Your task to perform on an android device: What's the weather going to be this weekend? Image 0: 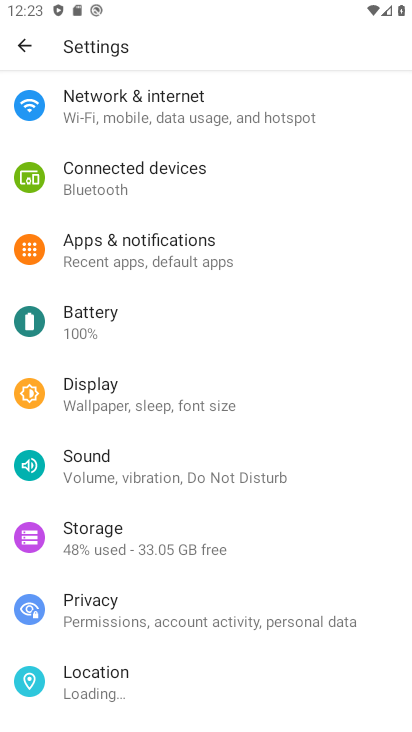
Step 0: press back button
Your task to perform on an android device: What's the weather going to be this weekend? Image 1: 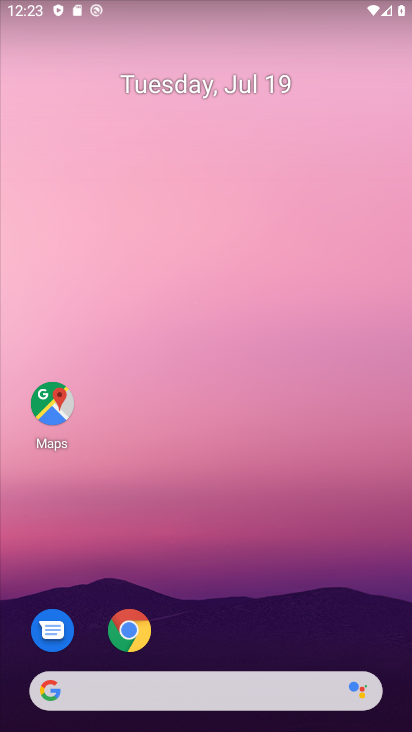
Step 1: drag from (216, 594) to (173, 179)
Your task to perform on an android device: What's the weather going to be this weekend? Image 2: 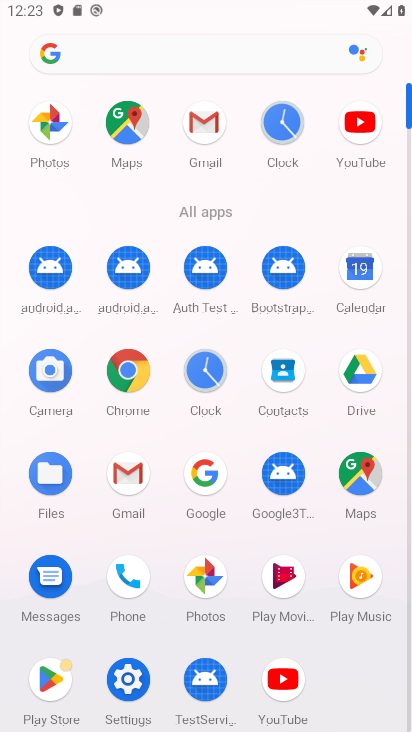
Step 2: click (127, 373)
Your task to perform on an android device: What's the weather going to be this weekend? Image 3: 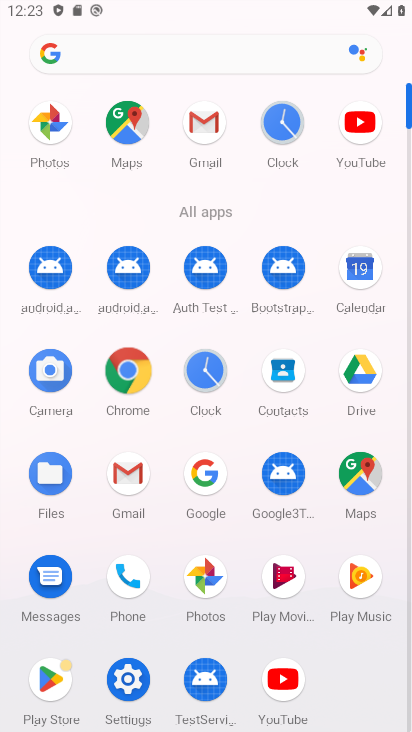
Step 3: click (127, 373)
Your task to perform on an android device: What's the weather going to be this weekend? Image 4: 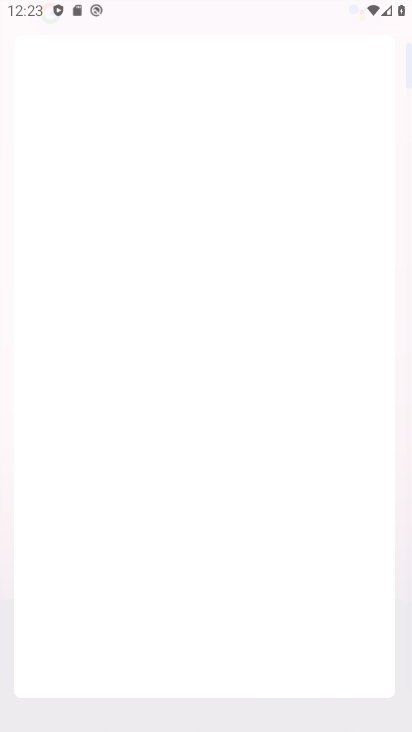
Step 4: click (131, 374)
Your task to perform on an android device: What's the weather going to be this weekend? Image 5: 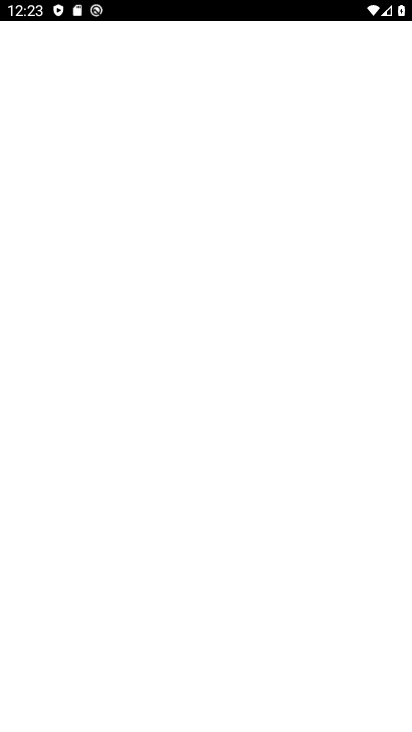
Step 5: click (130, 373)
Your task to perform on an android device: What's the weather going to be this weekend? Image 6: 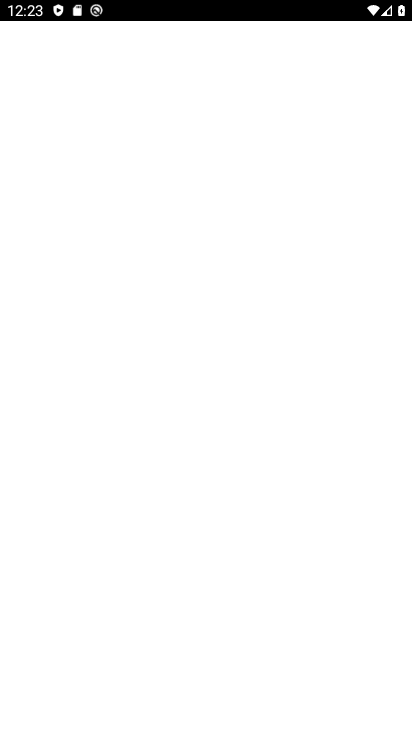
Step 6: click (130, 373)
Your task to perform on an android device: What's the weather going to be this weekend? Image 7: 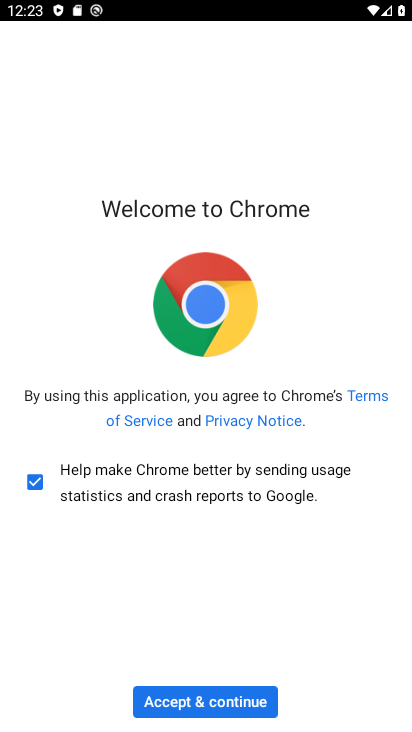
Step 7: click (211, 704)
Your task to perform on an android device: What's the weather going to be this weekend? Image 8: 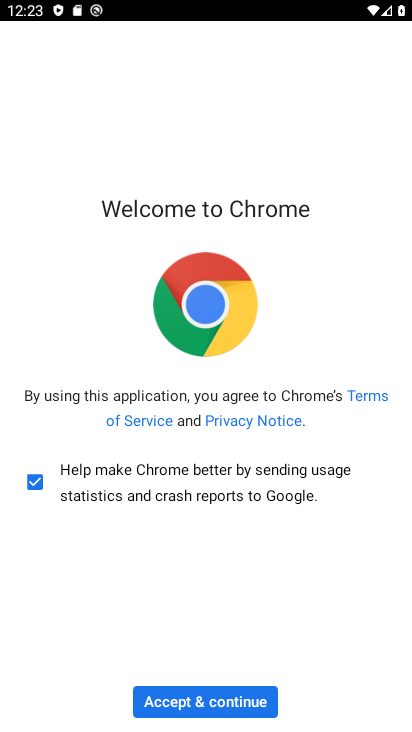
Step 8: click (211, 704)
Your task to perform on an android device: What's the weather going to be this weekend? Image 9: 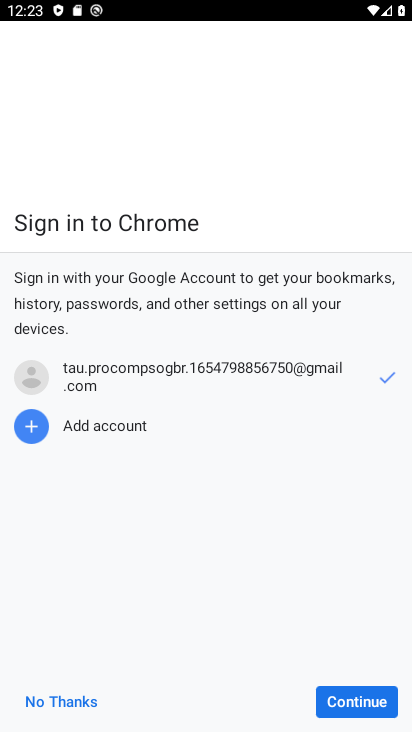
Step 9: click (213, 702)
Your task to perform on an android device: What's the weather going to be this weekend? Image 10: 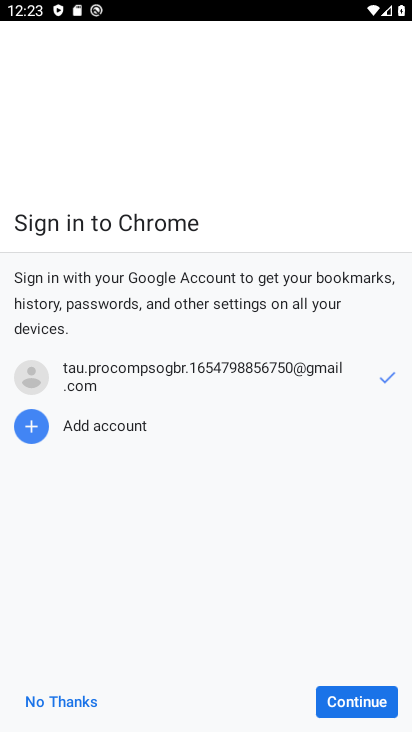
Step 10: click (214, 703)
Your task to perform on an android device: What's the weather going to be this weekend? Image 11: 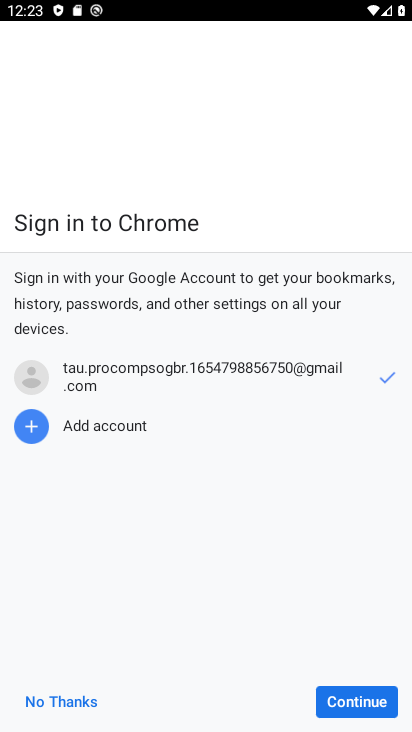
Step 11: click (214, 703)
Your task to perform on an android device: What's the weather going to be this weekend? Image 12: 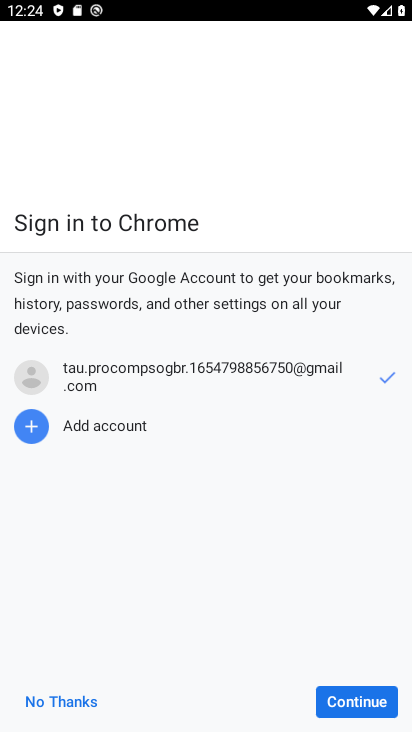
Step 12: click (340, 701)
Your task to perform on an android device: What's the weather going to be this weekend? Image 13: 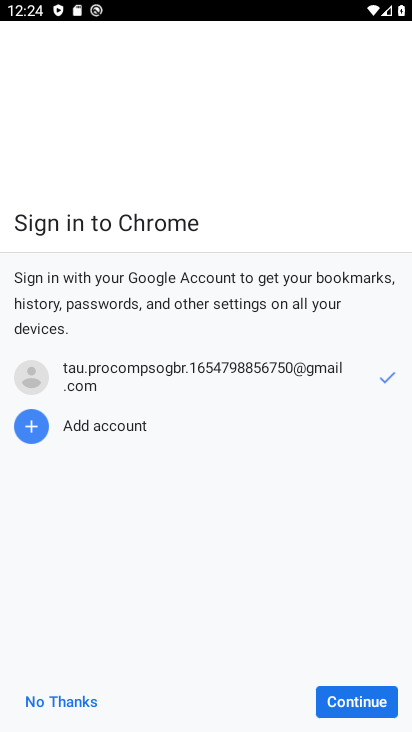
Step 13: click (343, 701)
Your task to perform on an android device: What's the weather going to be this weekend? Image 14: 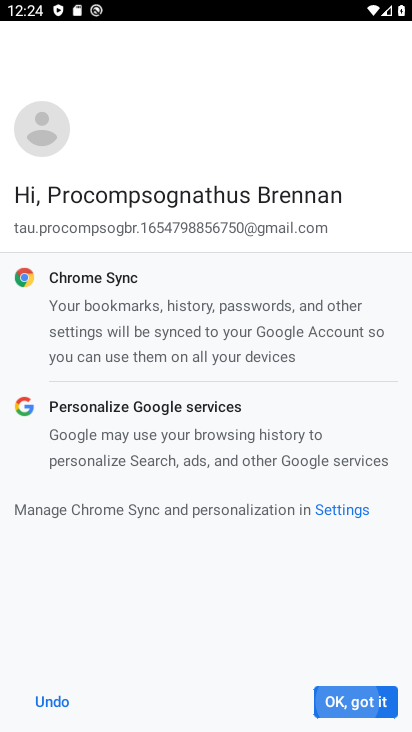
Step 14: click (342, 698)
Your task to perform on an android device: What's the weather going to be this weekend? Image 15: 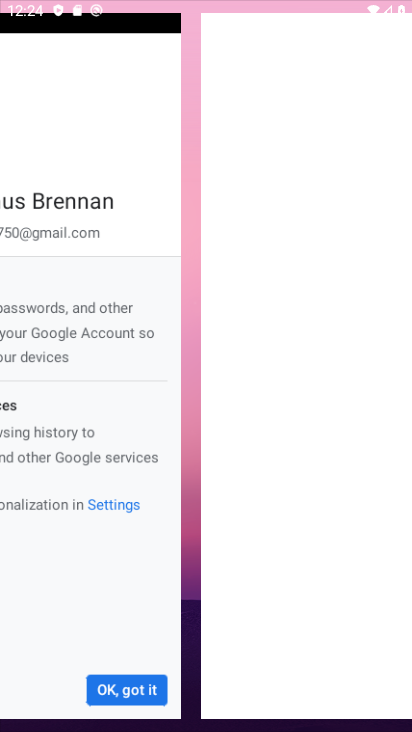
Step 15: click (343, 697)
Your task to perform on an android device: What's the weather going to be this weekend? Image 16: 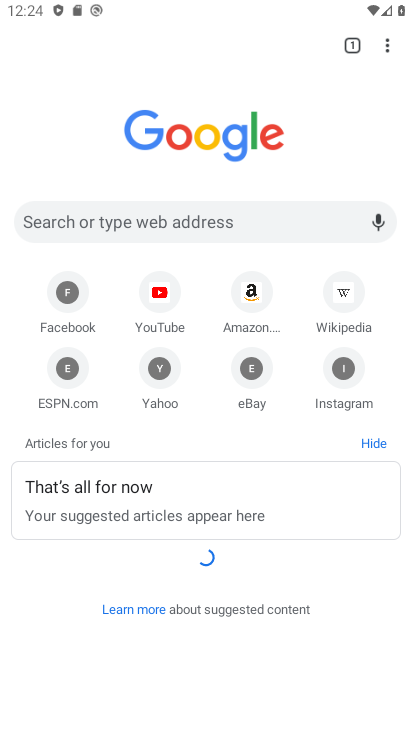
Step 16: click (68, 218)
Your task to perform on an android device: What's the weather going to be this weekend? Image 17: 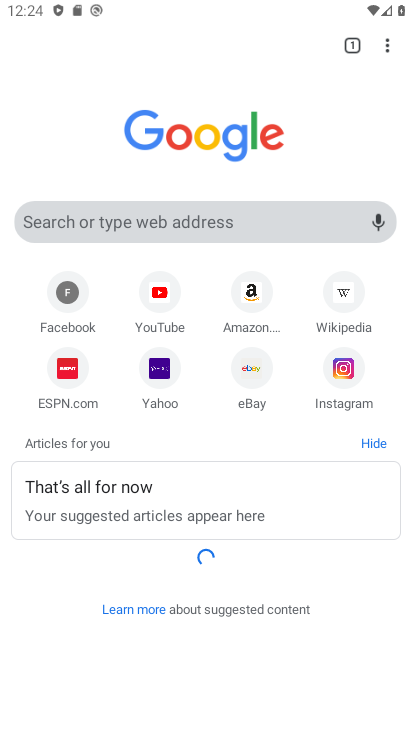
Step 17: click (68, 218)
Your task to perform on an android device: What's the weather going to be this weekend? Image 18: 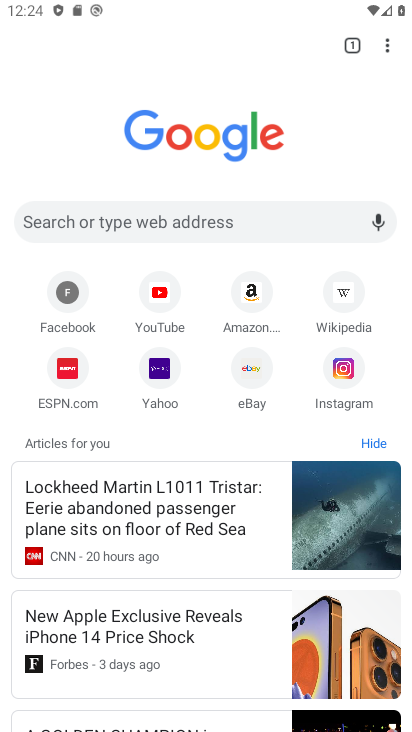
Step 18: click (89, 213)
Your task to perform on an android device: What's the weather going to be this weekend? Image 19: 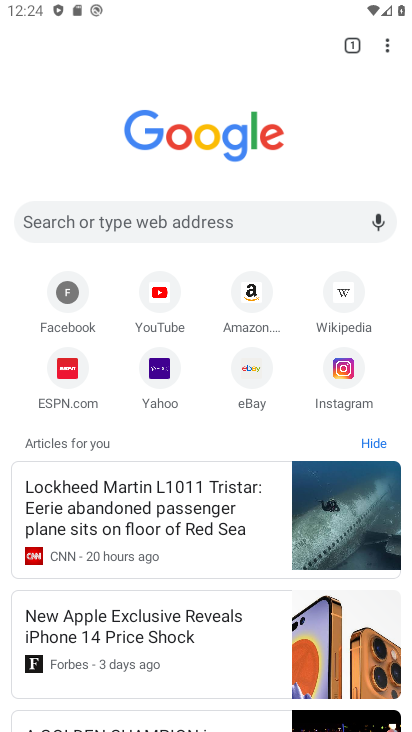
Step 19: click (89, 214)
Your task to perform on an android device: What's the weather going to be this weekend? Image 20: 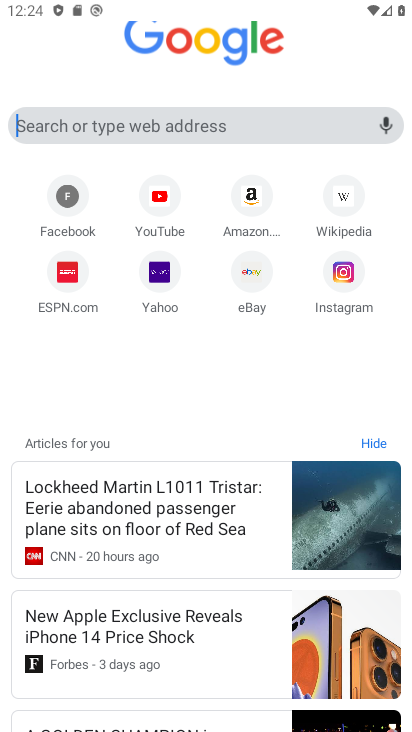
Step 20: click (89, 214)
Your task to perform on an android device: What's the weather going to be this weekend? Image 21: 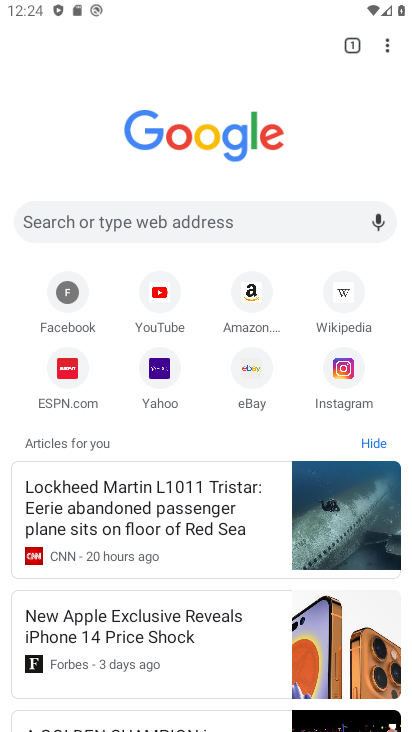
Step 21: click (58, 220)
Your task to perform on an android device: What's the weather going to be this weekend? Image 22: 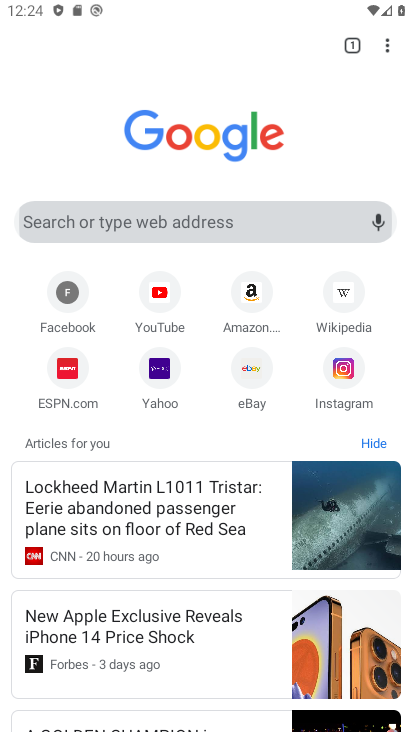
Step 22: click (58, 220)
Your task to perform on an android device: What's the weather going to be this weekend? Image 23: 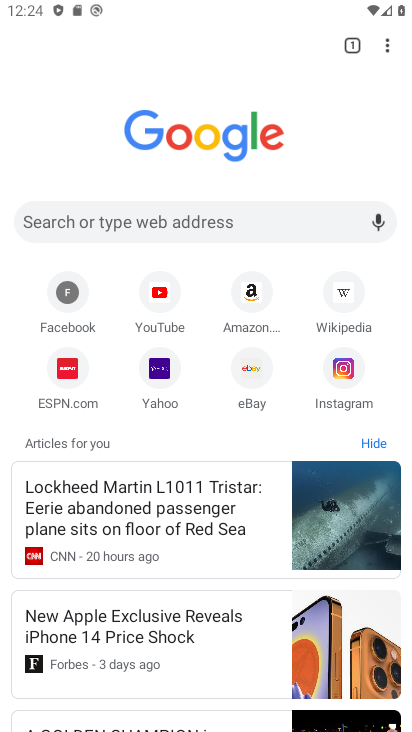
Step 23: click (69, 220)
Your task to perform on an android device: What's the weather going to be this weekend? Image 24: 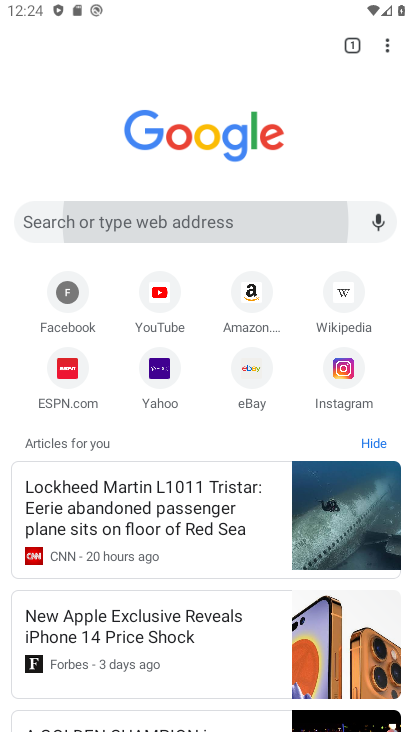
Step 24: click (69, 220)
Your task to perform on an android device: What's the weather going to be this weekend? Image 25: 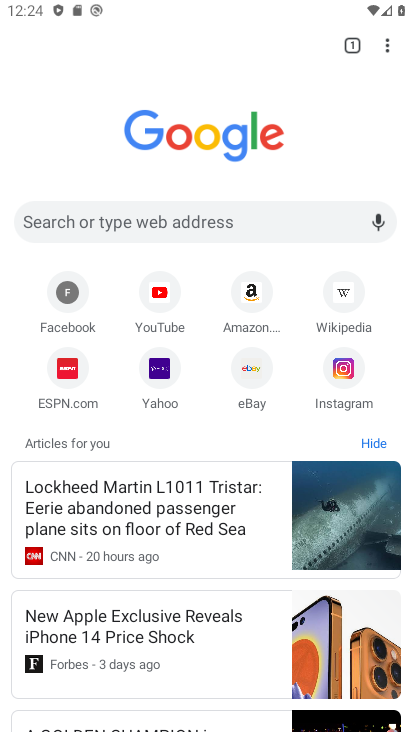
Step 25: click (43, 221)
Your task to perform on an android device: What's the weather going to be this weekend? Image 26: 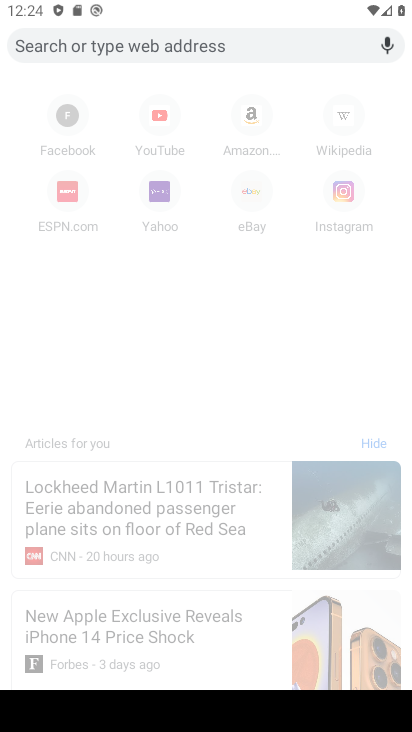
Step 26: click (45, 219)
Your task to perform on an android device: What's the weather going to be this weekend? Image 27: 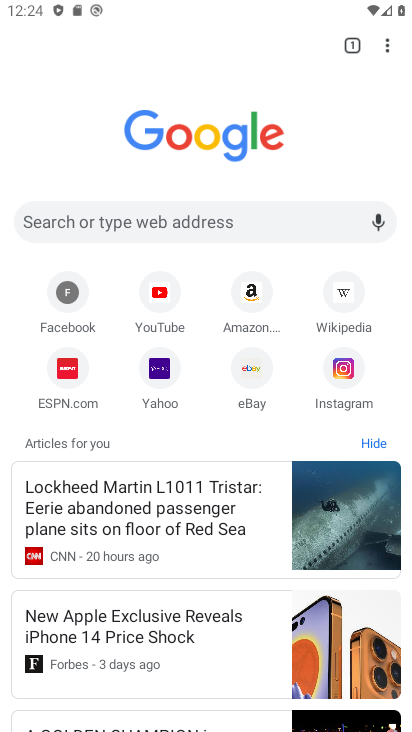
Step 27: click (61, 218)
Your task to perform on an android device: What's the weather going to be this weekend? Image 28: 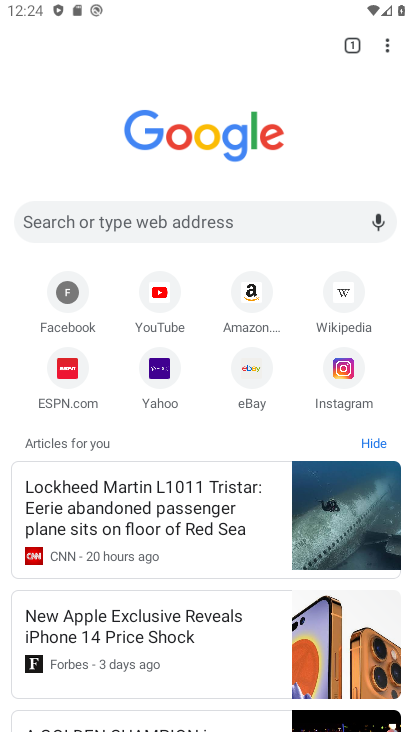
Step 28: click (61, 218)
Your task to perform on an android device: What's the weather going to be this weekend? Image 29: 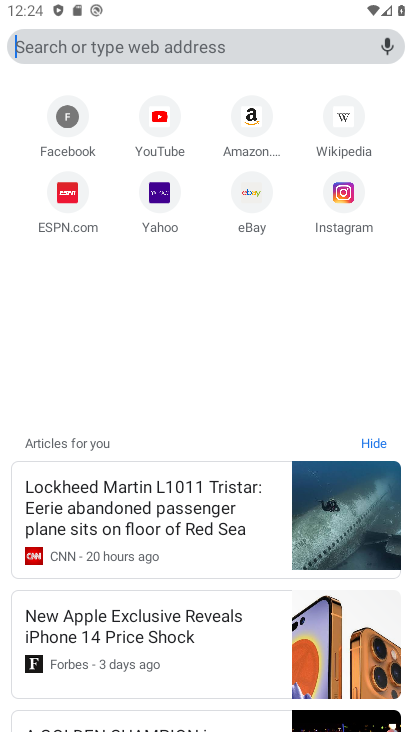
Step 29: click (61, 218)
Your task to perform on an android device: What's the weather going to be this weekend? Image 30: 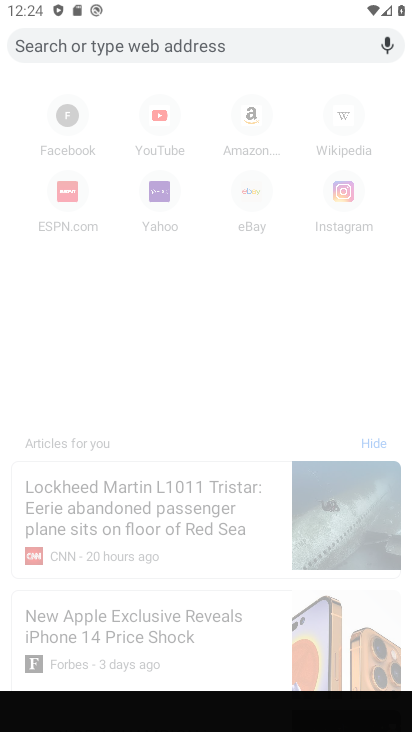
Step 30: click (61, 218)
Your task to perform on an android device: What's the weather going to be this weekend? Image 31: 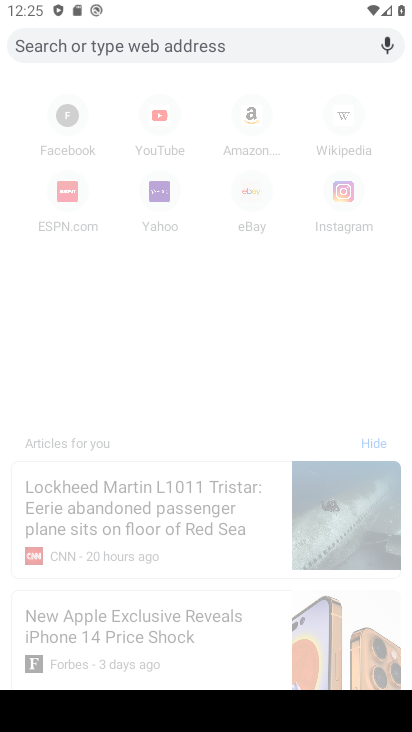
Step 31: type "what's the weather going to be this weekend?"
Your task to perform on an android device: What's the weather going to be this weekend? Image 32: 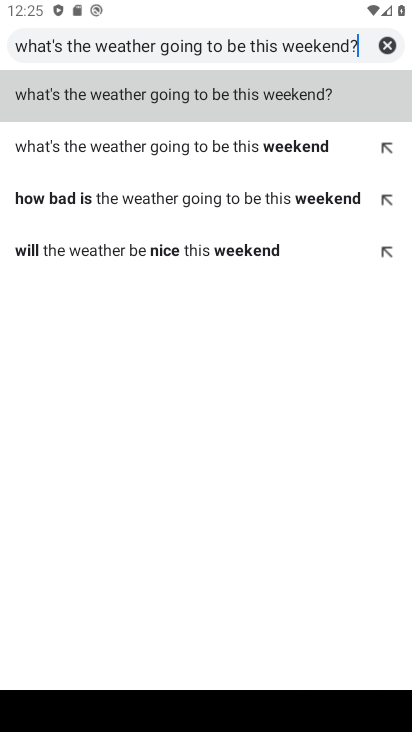
Step 32: click (252, 84)
Your task to perform on an android device: What's the weather going to be this weekend? Image 33: 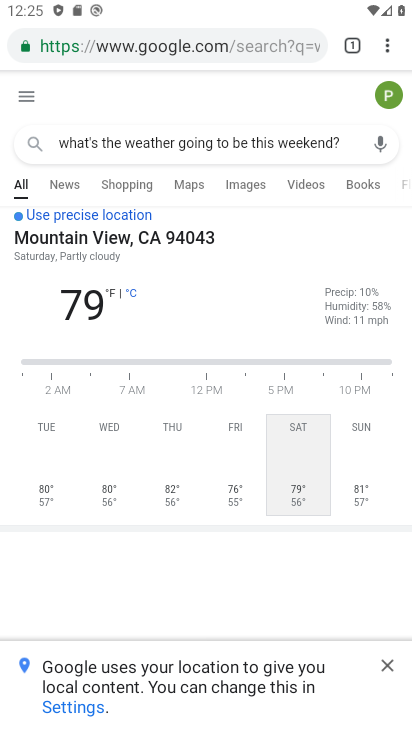
Step 33: task complete